Your task to perform on an android device: Open eBay Image 0: 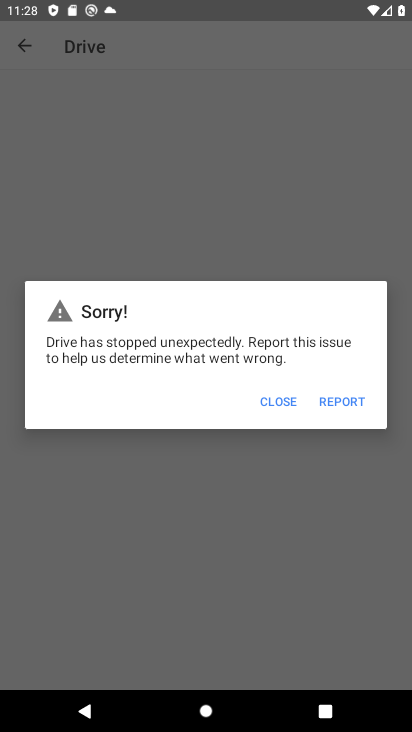
Step 0: press home button
Your task to perform on an android device: Open eBay Image 1: 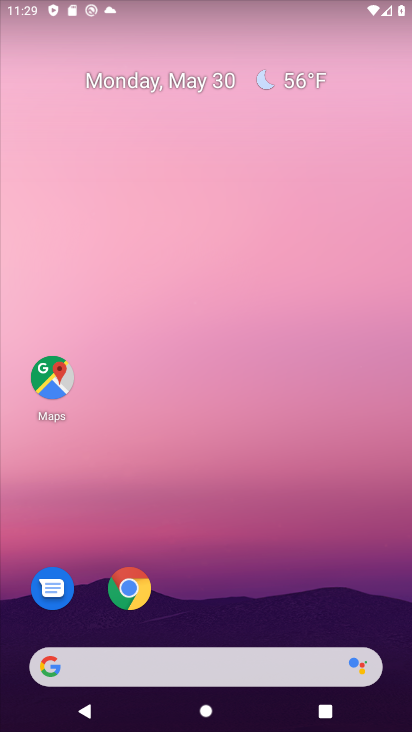
Step 1: drag from (208, 616) to (287, 90)
Your task to perform on an android device: Open eBay Image 2: 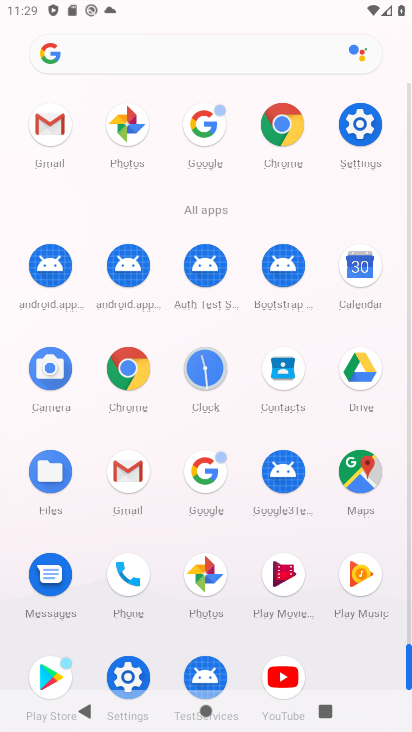
Step 2: click (282, 138)
Your task to perform on an android device: Open eBay Image 3: 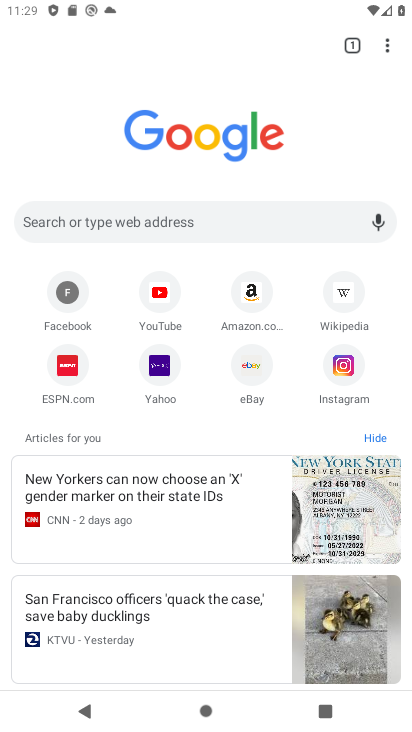
Step 3: click (252, 383)
Your task to perform on an android device: Open eBay Image 4: 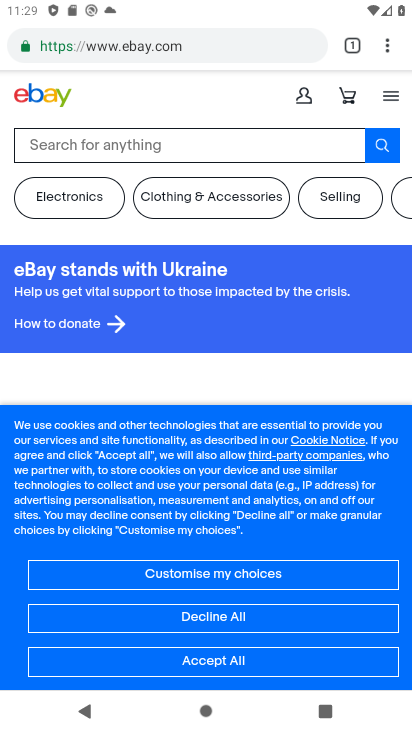
Step 4: task complete